Your task to perform on an android device: Search for seafood restaurants on Google Maps Image 0: 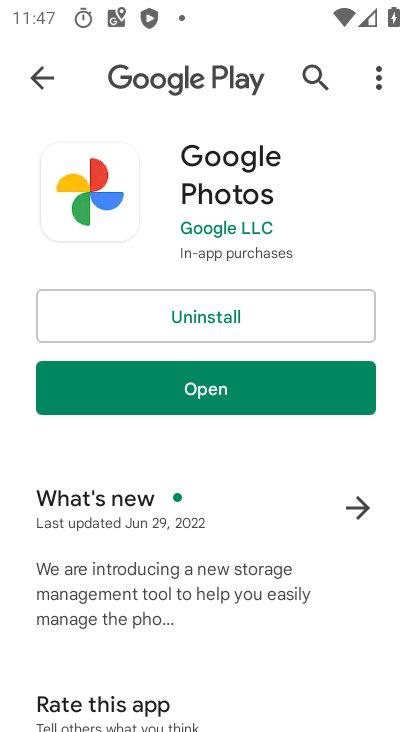
Step 0: press home button
Your task to perform on an android device: Search for seafood restaurants on Google Maps Image 1: 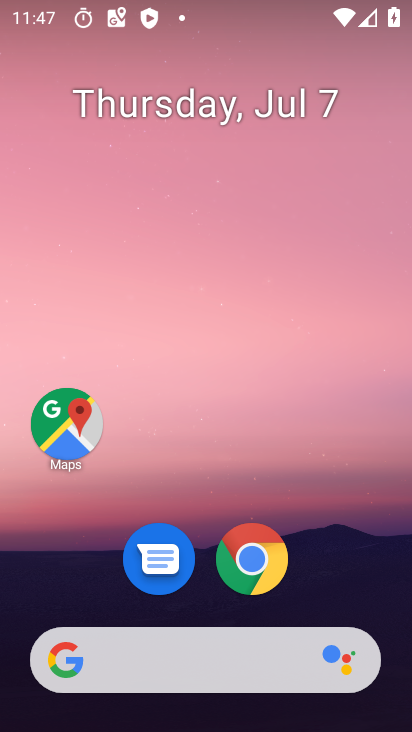
Step 1: drag from (346, 566) to (368, 144)
Your task to perform on an android device: Search for seafood restaurants on Google Maps Image 2: 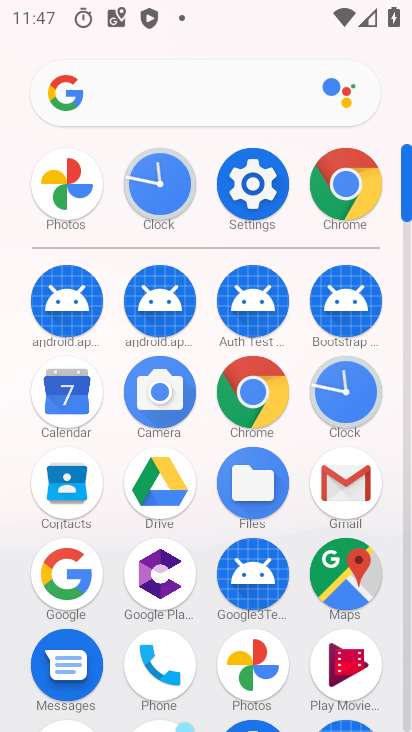
Step 2: click (350, 570)
Your task to perform on an android device: Search for seafood restaurants on Google Maps Image 3: 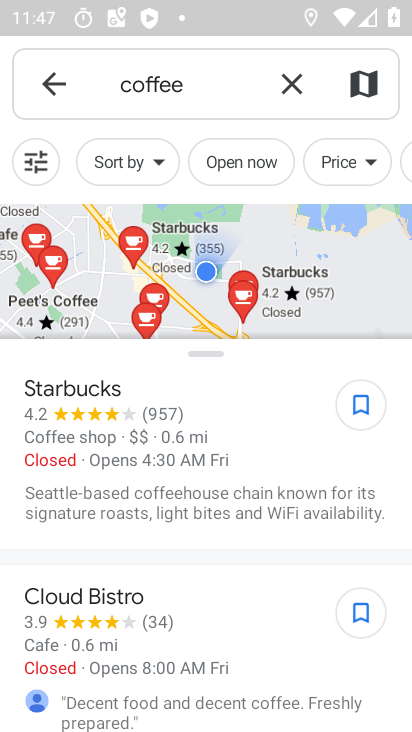
Step 3: type "seafood restaurants"
Your task to perform on an android device: Search for seafood restaurants on Google Maps Image 4: 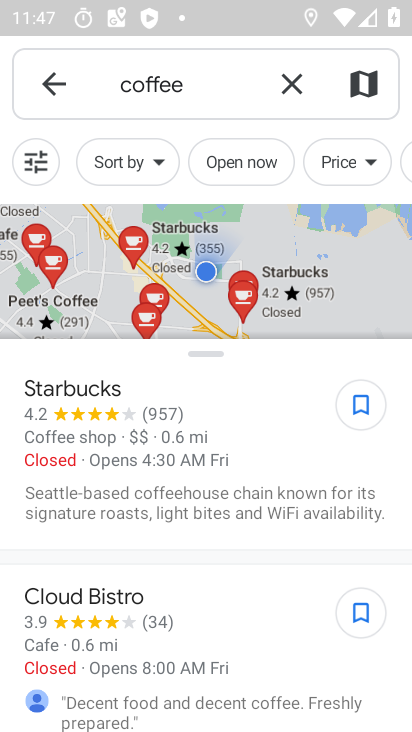
Step 4: press back button
Your task to perform on an android device: Search for seafood restaurants on Google Maps Image 5: 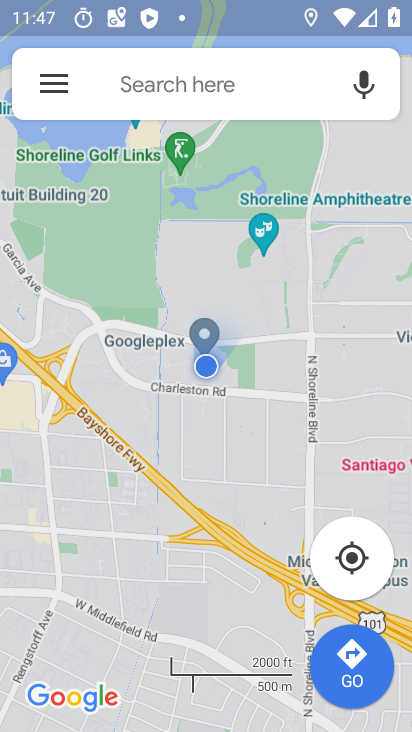
Step 5: click (252, 84)
Your task to perform on an android device: Search for seafood restaurants on Google Maps Image 6: 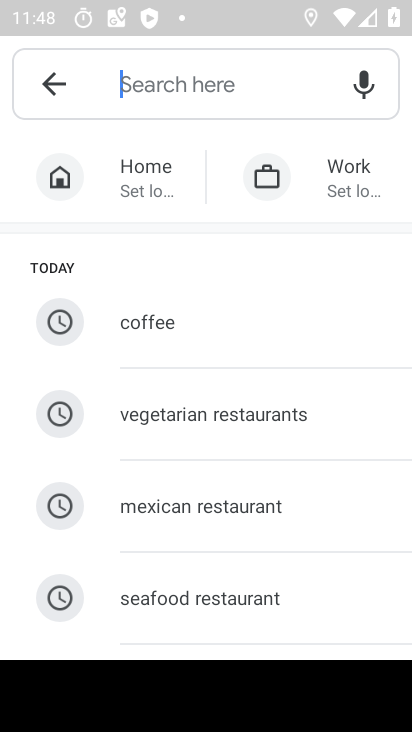
Step 6: type "seafood restaurants"
Your task to perform on an android device: Search for seafood restaurants on Google Maps Image 7: 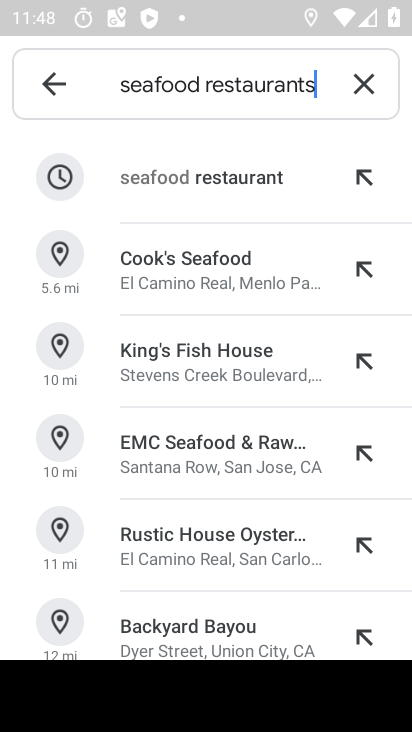
Step 7: click (256, 189)
Your task to perform on an android device: Search for seafood restaurants on Google Maps Image 8: 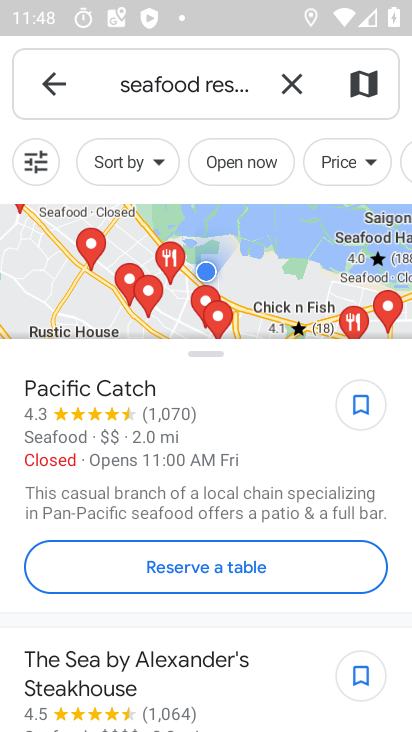
Step 8: task complete